Your task to perform on an android device: turn off wifi Image 0: 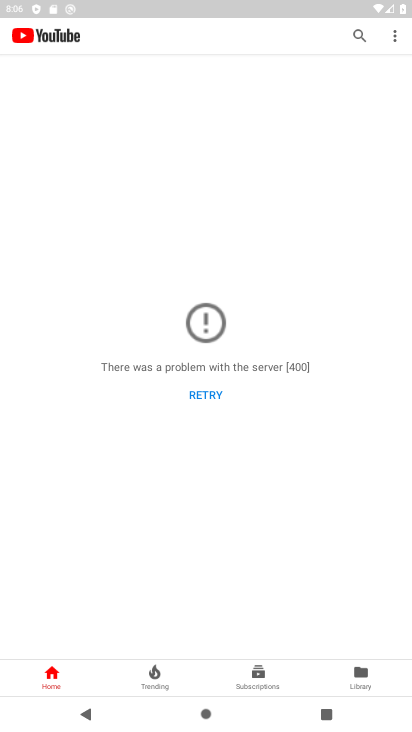
Step 0: press home button
Your task to perform on an android device: turn off wifi Image 1: 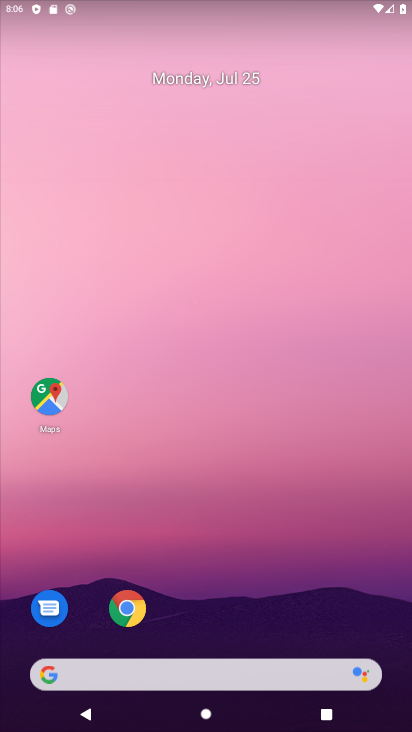
Step 1: drag from (246, 708) to (199, 146)
Your task to perform on an android device: turn off wifi Image 2: 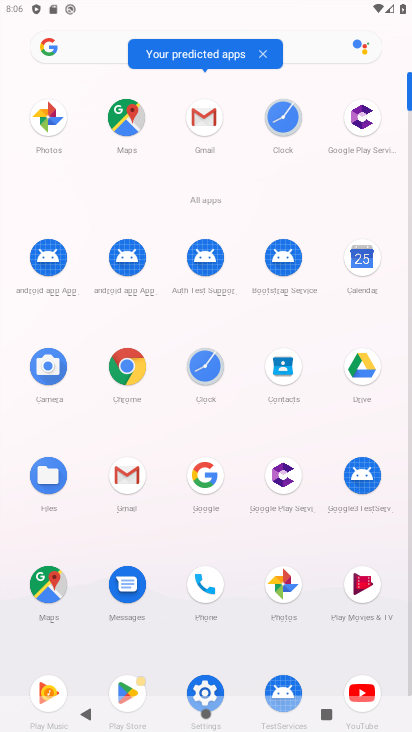
Step 2: click (196, 683)
Your task to perform on an android device: turn off wifi Image 3: 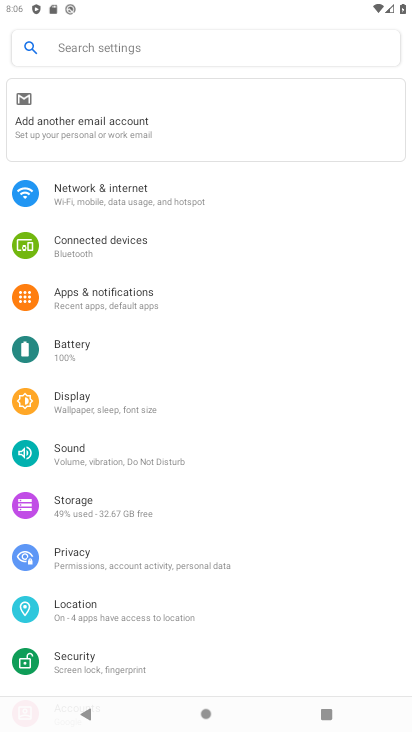
Step 3: click (94, 198)
Your task to perform on an android device: turn off wifi Image 4: 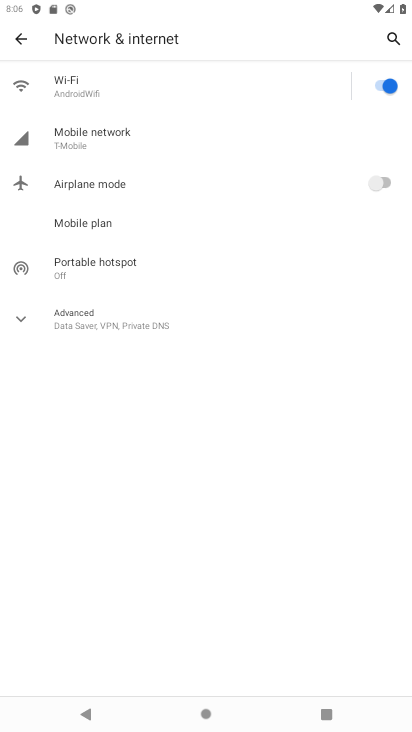
Step 4: click (385, 83)
Your task to perform on an android device: turn off wifi Image 5: 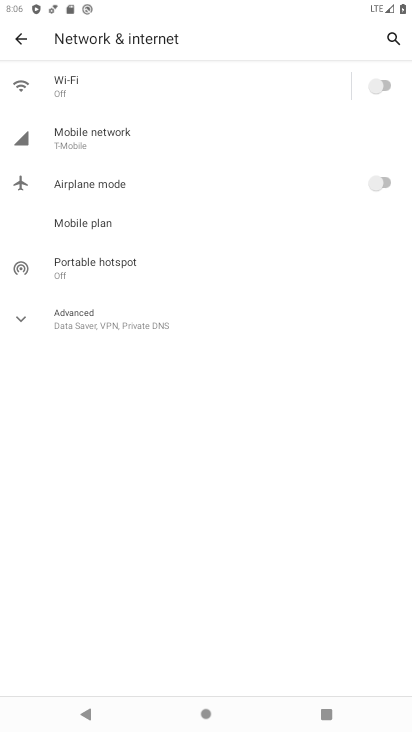
Step 5: task complete